Your task to perform on an android device: Search for the Nintendo Switch. Image 0: 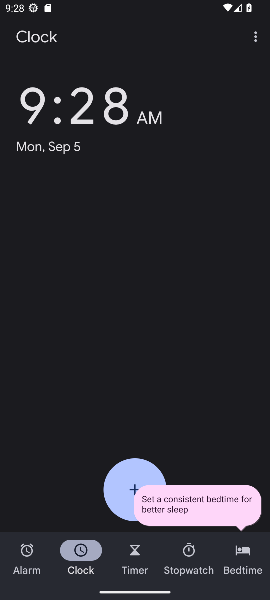
Step 0: press home button
Your task to perform on an android device: Search for the Nintendo Switch. Image 1: 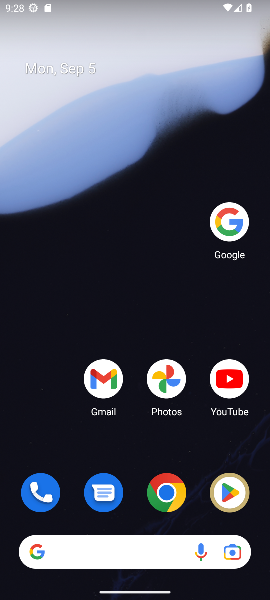
Step 1: click (227, 224)
Your task to perform on an android device: Search for the Nintendo Switch. Image 2: 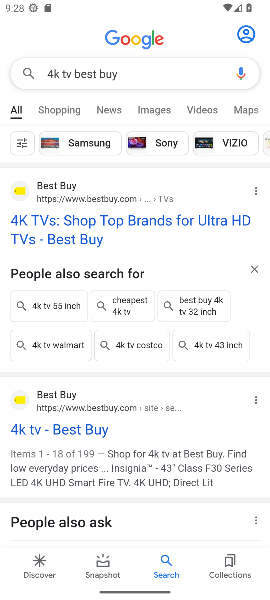
Step 2: click (134, 82)
Your task to perform on an android device: Search for the Nintendo Switch. Image 3: 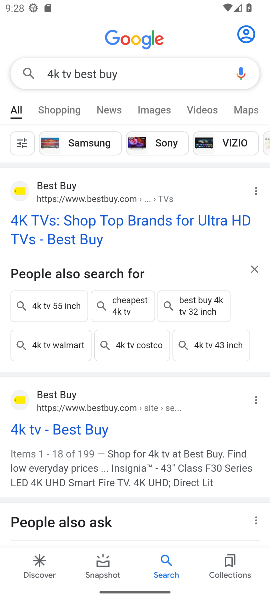
Step 3: click (134, 64)
Your task to perform on an android device: Search for the Nintendo Switch. Image 4: 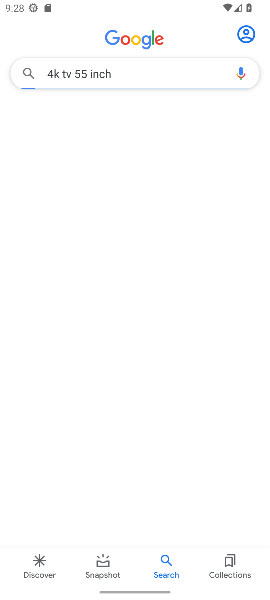
Step 4: click (160, 76)
Your task to perform on an android device: Search for the Nintendo Switch. Image 5: 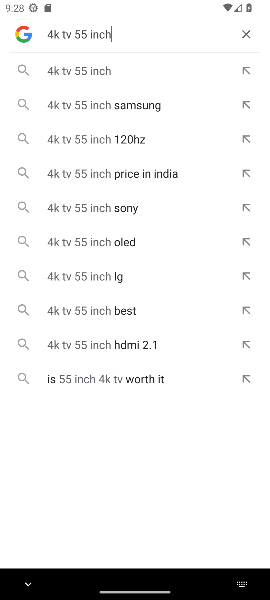
Step 5: click (242, 39)
Your task to perform on an android device: Search for the Nintendo Switch. Image 6: 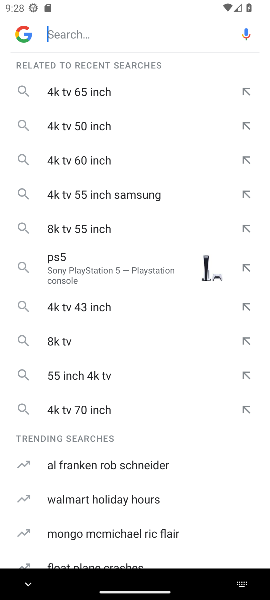
Step 6: click (140, 17)
Your task to perform on an android device: Search for the Nintendo Switch. Image 7: 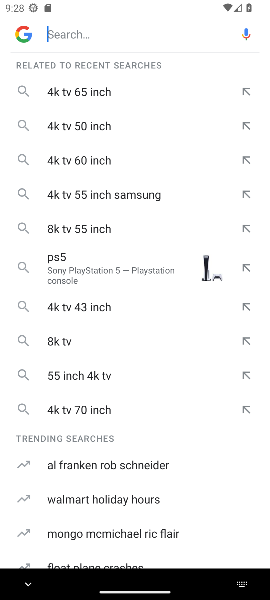
Step 7: type " the Nintendo Switch. "
Your task to perform on an android device: Search for the Nintendo Switch. Image 8: 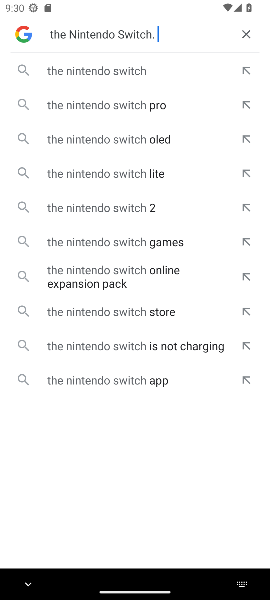
Step 8: click (117, 67)
Your task to perform on an android device: Search for the Nintendo Switch. Image 9: 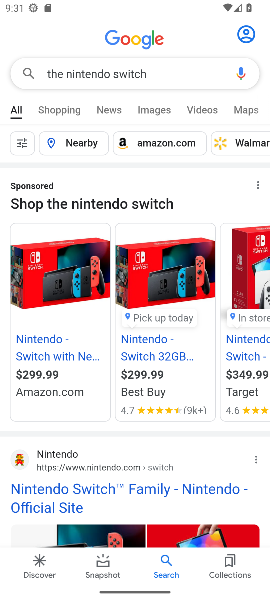
Step 9: task complete